Your task to perform on an android device: Go to Google maps Image 0: 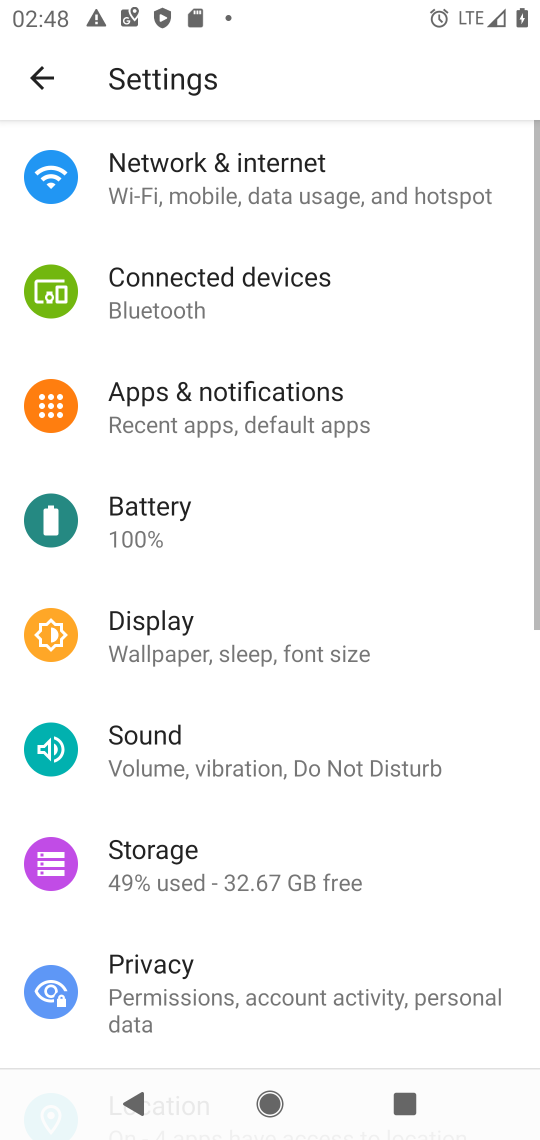
Step 0: press home button
Your task to perform on an android device: Go to Google maps Image 1: 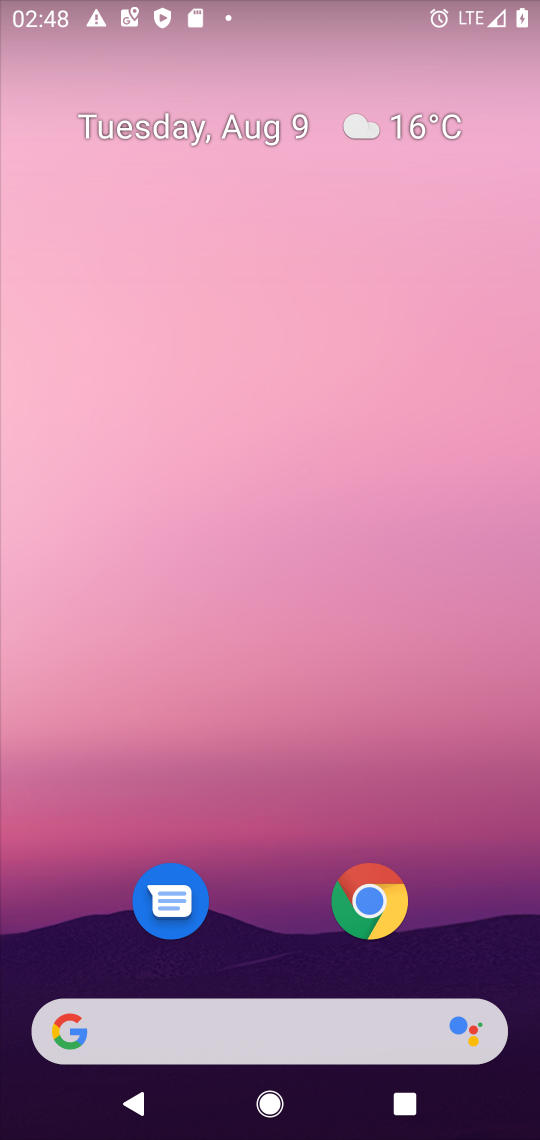
Step 1: drag from (512, 967) to (478, 296)
Your task to perform on an android device: Go to Google maps Image 2: 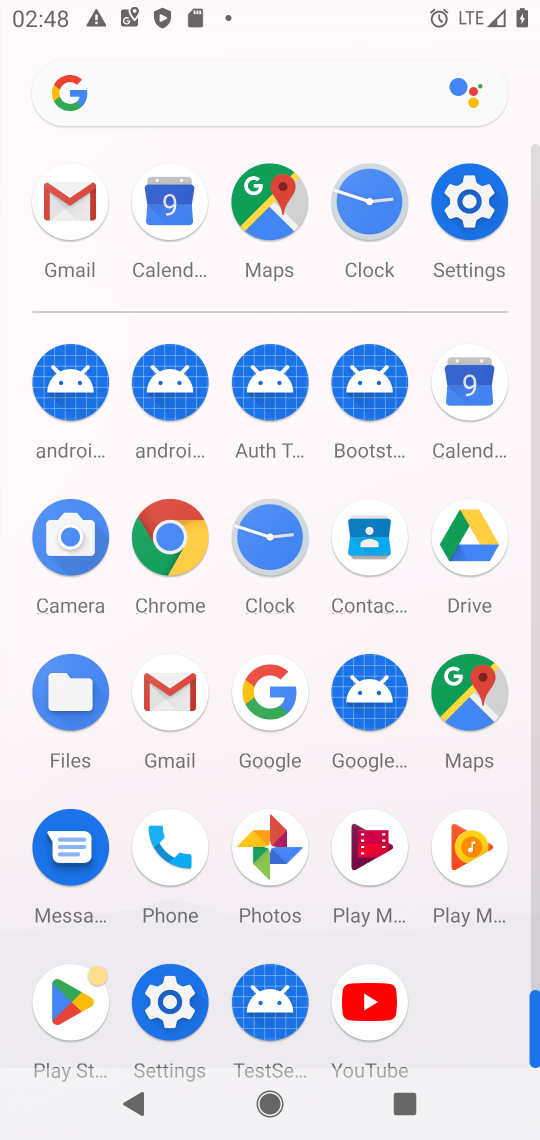
Step 2: click (478, 696)
Your task to perform on an android device: Go to Google maps Image 3: 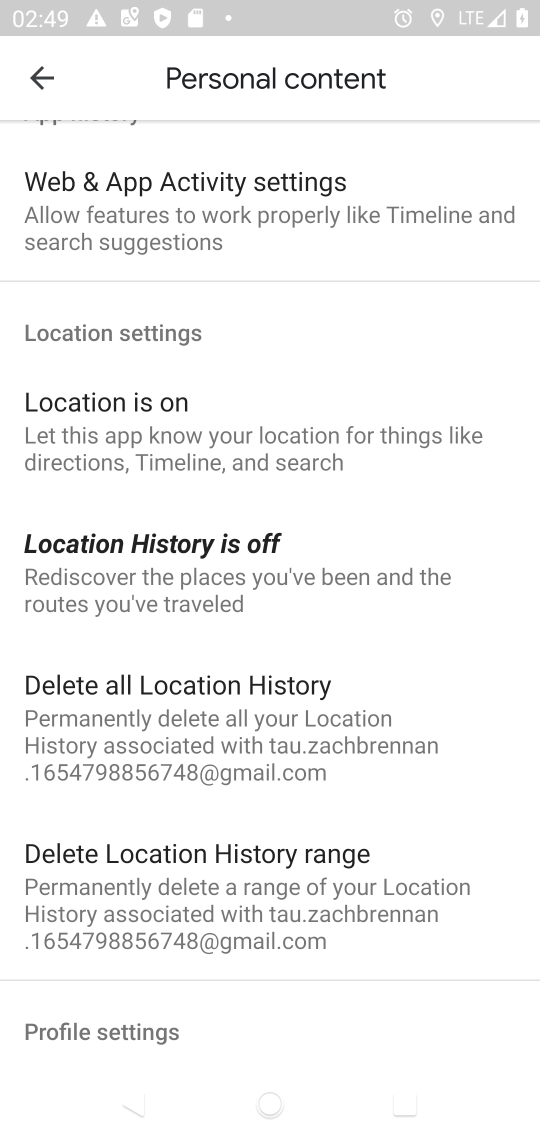
Step 3: task complete